Your task to perform on an android device: Open Maps and search for coffee Image 0: 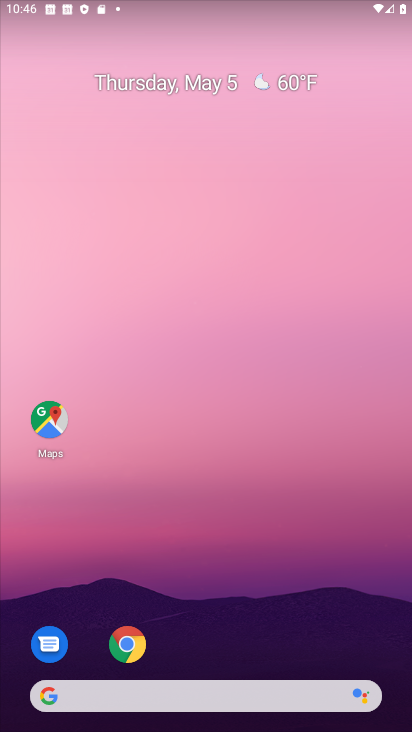
Step 0: drag from (201, 510) to (284, 83)
Your task to perform on an android device: Open Maps and search for coffee Image 1: 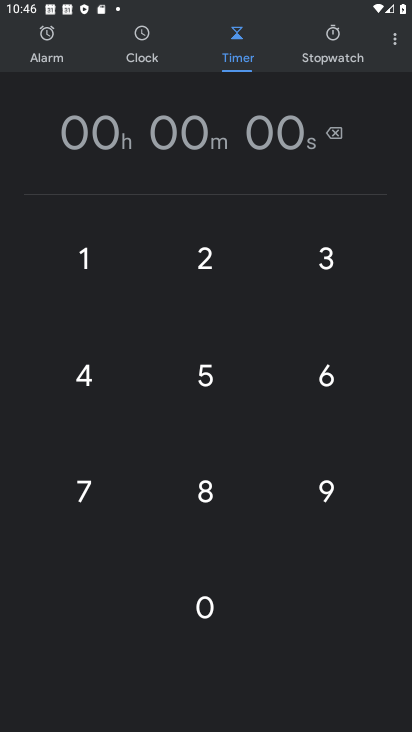
Step 1: press home button
Your task to perform on an android device: Open Maps and search for coffee Image 2: 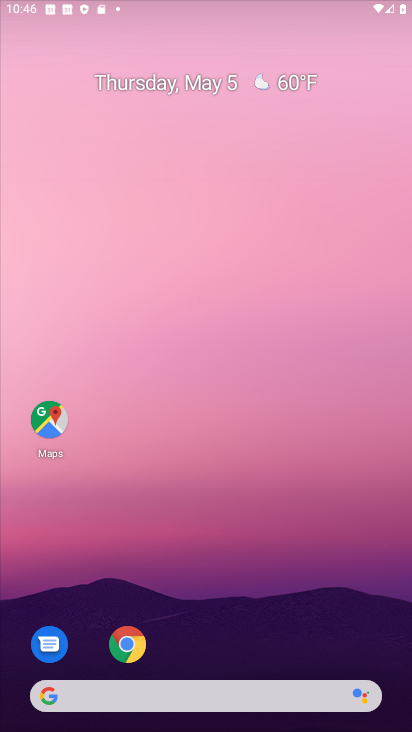
Step 2: drag from (221, 522) to (324, 76)
Your task to perform on an android device: Open Maps and search for coffee Image 3: 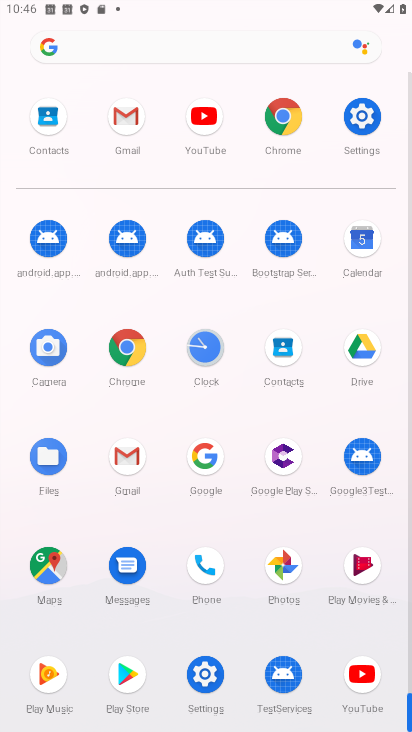
Step 3: drag from (169, 667) to (241, 63)
Your task to perform on an android device: Open Maps and search for coffee Image 4: 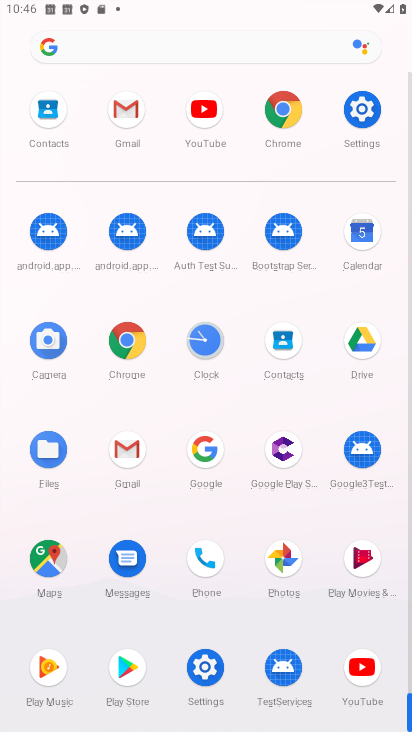
Step 4: click (57, 554)
Your task to perform on an android device: Open Maps and search for coffee Image 5: 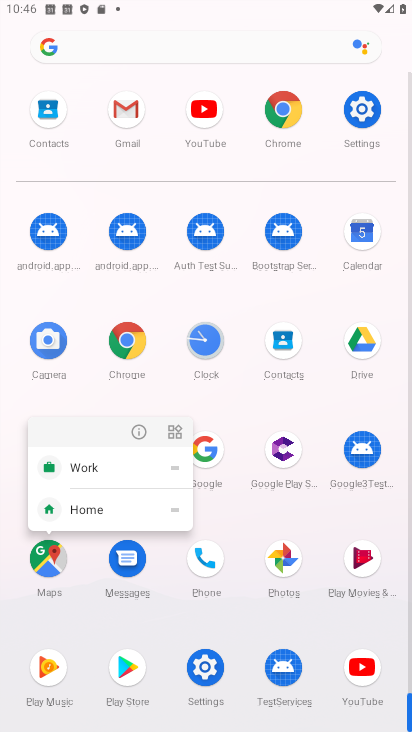
Step 5: click (134, 431)
Your task to perform on an android device: Open Maps and search for coffee Image 6: 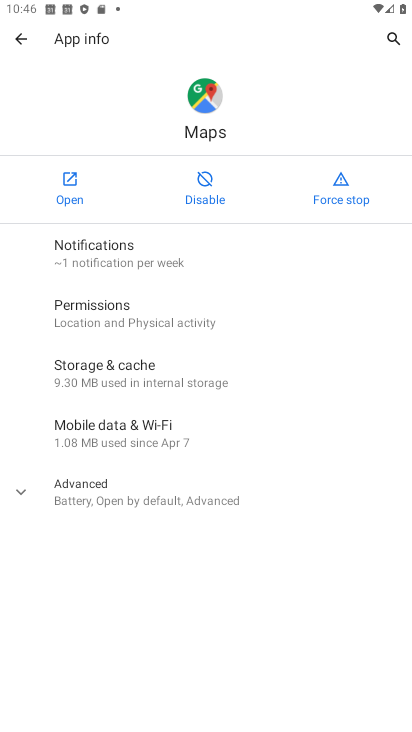
Step 6: click (74, 195)
Your task to perform on an android device: Open Maps and search for coffee Image 7: 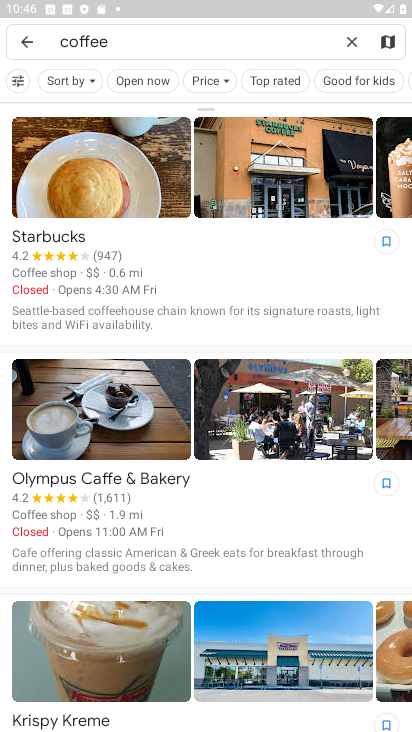
Step 7: task complete